Your task to perform on an android device: turn off javascript in the chrome app Image 0: 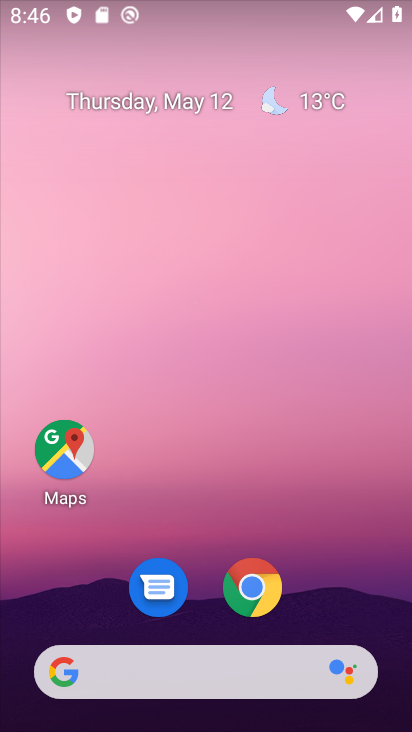
Step 0: drag from (329, 608) to (239, 159)
Your task to perform on an android device: turn off javascript in the chrome app Image 1: 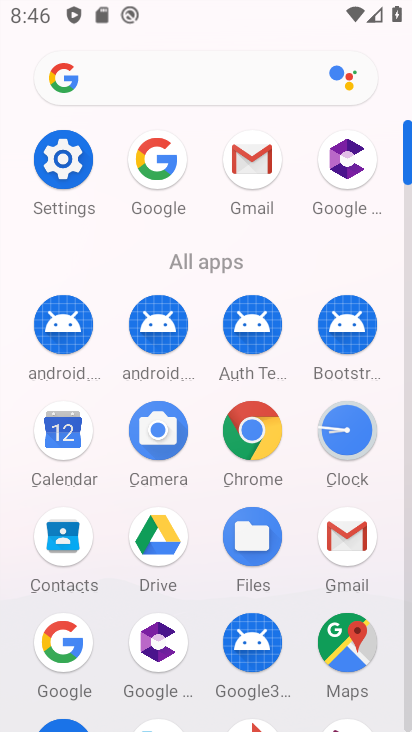
Step 1: click (252, 430)
Your task to perform on an android device: turn off javascript in the chrome app Image 2: 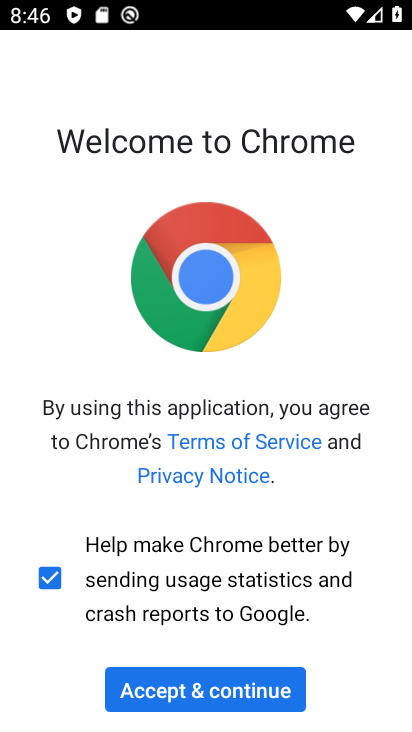
Step 2: click (260, 684)
Your task to perform on an android device: turn off javascript in the chrome app Image 3: 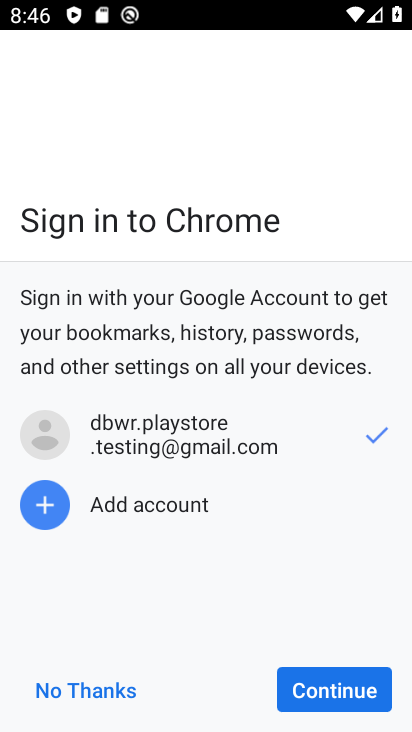
Step 3: click (79, 695)
Your task to perform on an android device: turn off javascript in the chrome app Image 4: 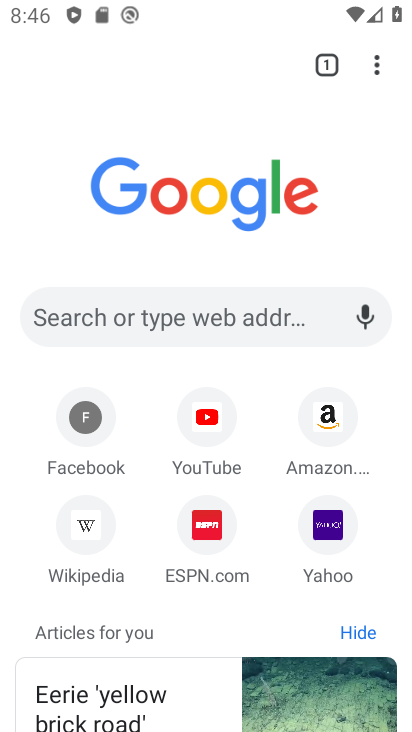
Step 4: drag from (385, 64) to (200, 532)
Your task to perform on an android device: turn off javascript in the chrome app Image 5: 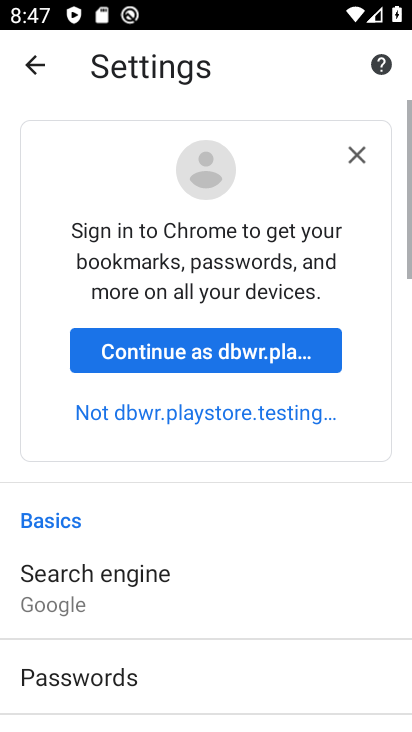
Step 5: drag from (172, 605) to (143, 162)
Your task to perform on an android device: turn off javascript in the chrome app Image 6: 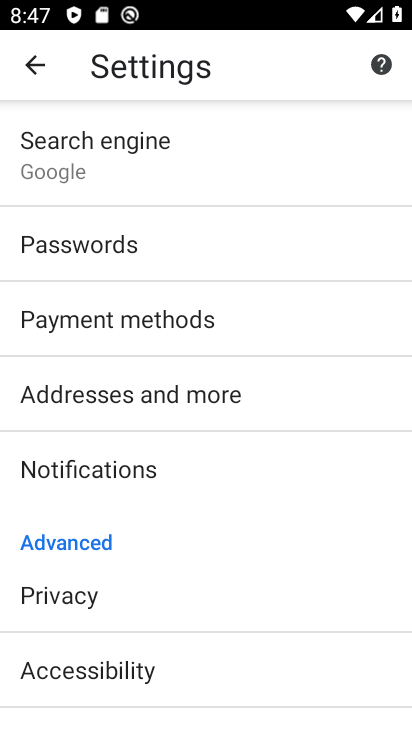
Step 6: drag from (153, 575) to (180, 263)
Your task to perform on an android device: turn off javascript in the chrome app Image 7: 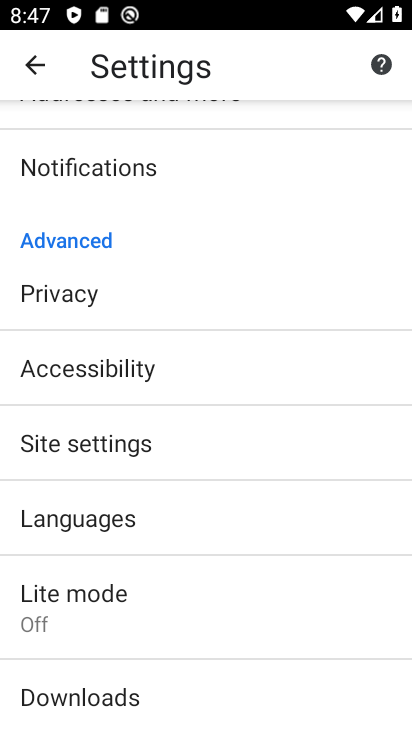
Step 7: click (87, 451)
Your task to perform on an android device: turn off javascript in the chrome app Image 8: 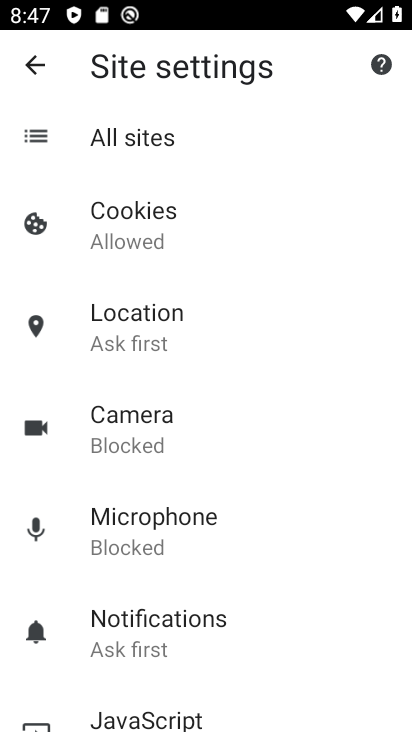
Step 8: drag from (173, 567) to (209, 211)
Your task to perform on an android device: turn off javascript in the chrome app Image 9: 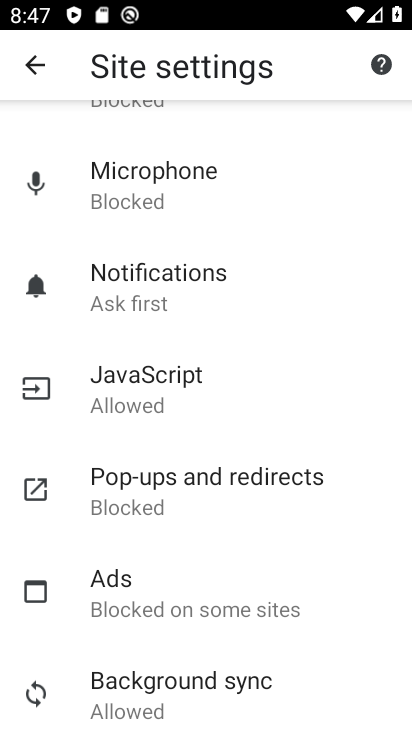
Step 9: click (164, 406)
Your task to perform on an android device: turn off javascript in the chrome app Image 10: 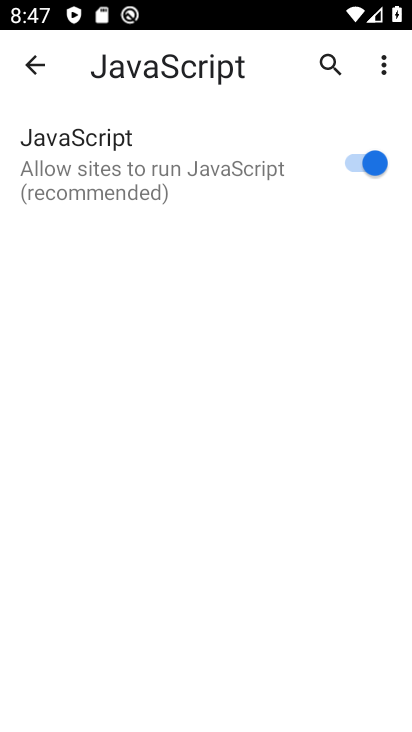
Step 10: click (360, 163)
Your task to perform on an android device: turn off javascript in the chrome app Image 11: 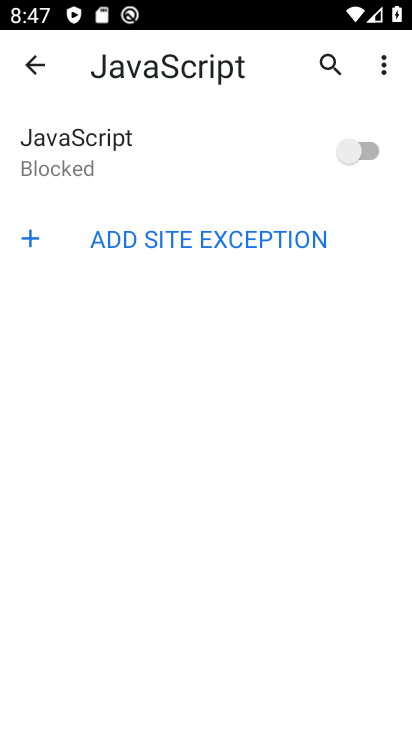
Step 11: task complete